Your task to perform on an android device: find photos in the google photos app Image 0: 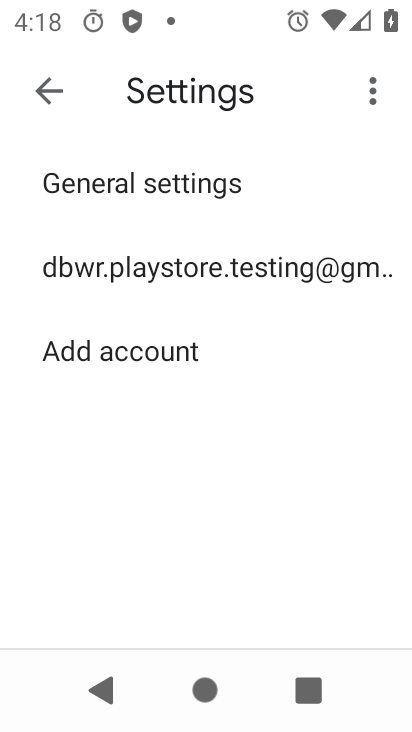
Step 0: press home button
Your task to perform on an android device: find photos in the google photos app Image 1: 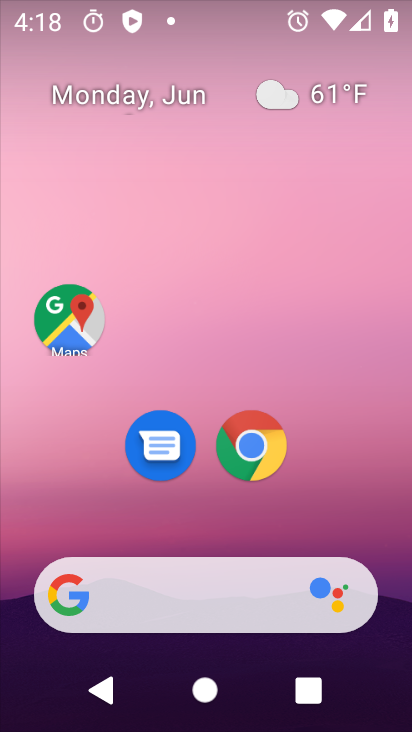
Step 1: drag from (213, 534) to (162, 22)
Your task to perform on an android device: find photos in the google photos app Image 2: 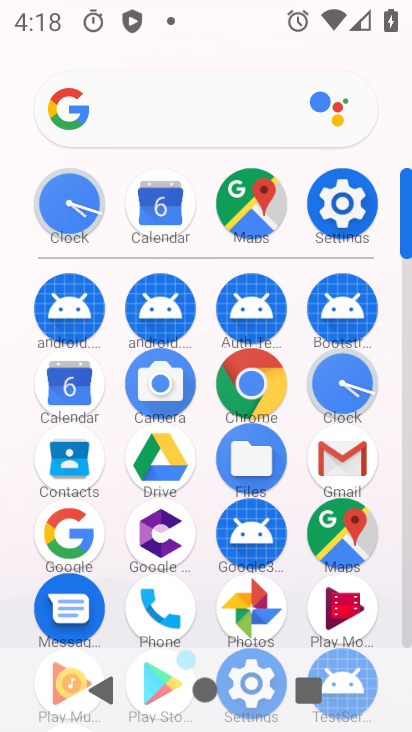
Step 2: click (250, 621)
Your task to perform on an android device: find photos in the google photos app Image 3: 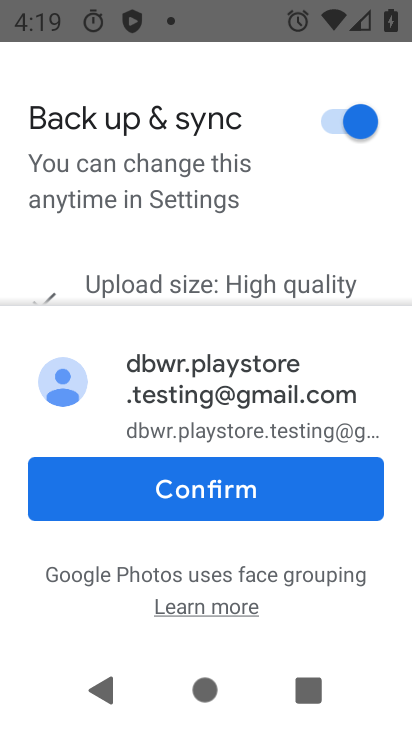
Step 3: click (173, 495)
Your task to perform on an android device: find photos in the google photos app Image 4: 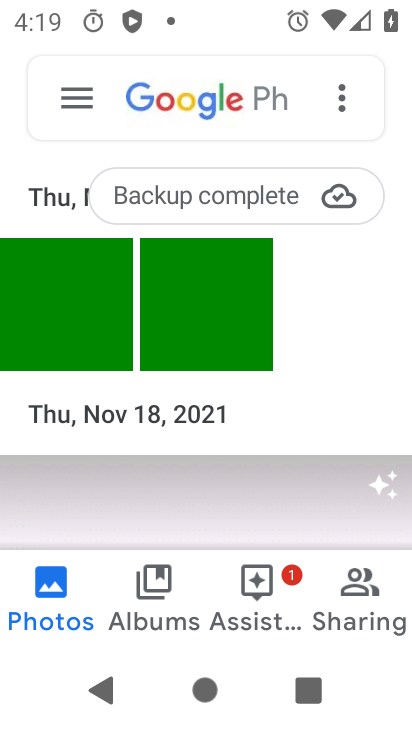
Step 4: task complete